Your task to perform on an android device: Go to settings Image 0: 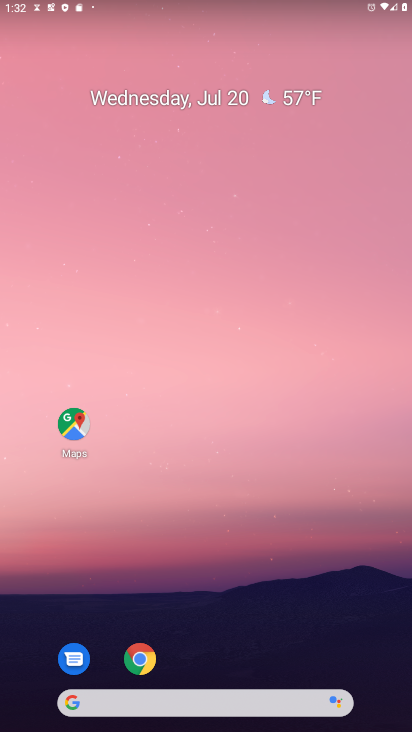
Step 0: drag from (198, 667) to (247, 138)
Your task to perform on an android device: Go to settings Image 1: 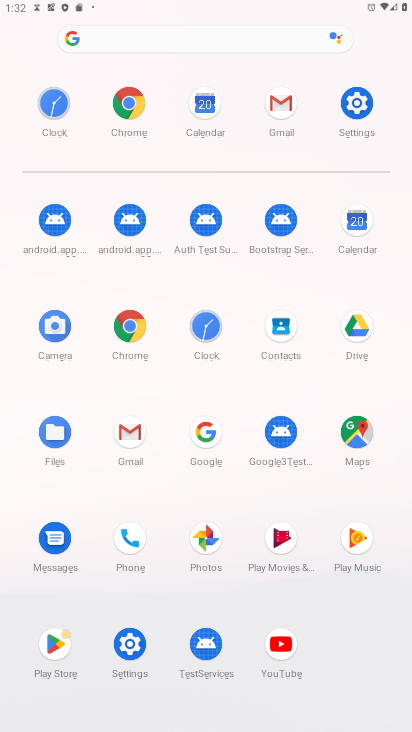
Step 1: click (354, 101)
Your task to perform on an android device: Go to settings Image 2: 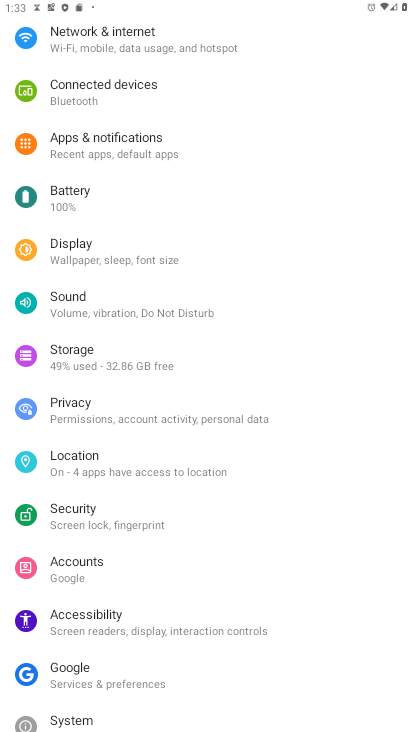
Step 2: task complete